Your task to perform on an android device: stop showing notifications on the lock screen Image 0: 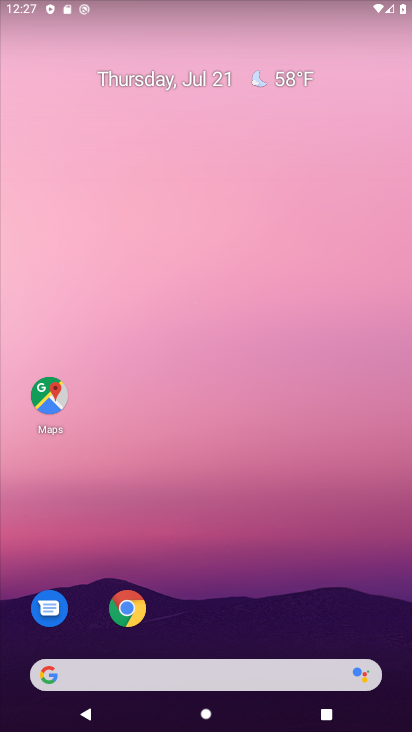
Step 0: drag from (226, 634) to (250, 93)
Your task to perform on an android device: stop showing notifications on the lock screen Image 1: 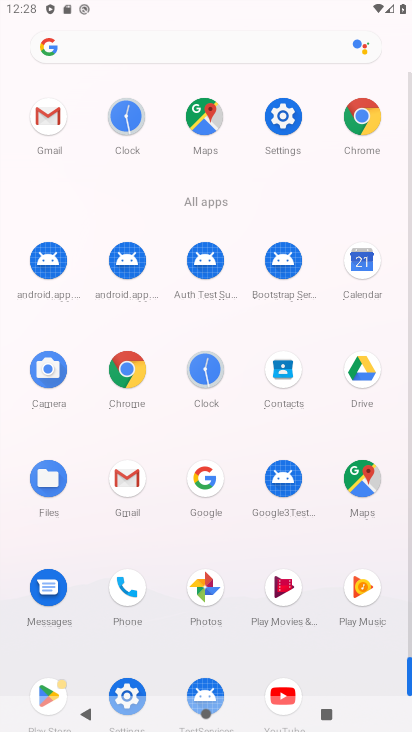
Step 1: click (279, 111)
Your task to perform on an android device: stop showing notifications on the lock screen Image 2: 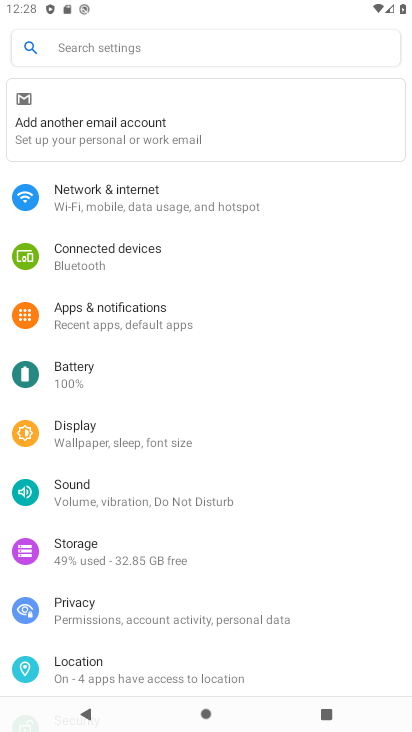
Step 2: click (147, 313)
Your task to perform on an android device: stop showing notifications on the lock screen Image 3: 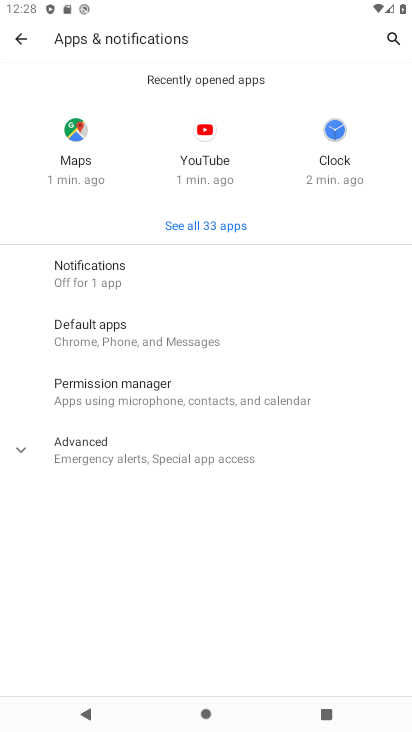
Step 3: click (128, 270)
Your task to perform on an android device: stop showing notifications on the lock screen Image 4: 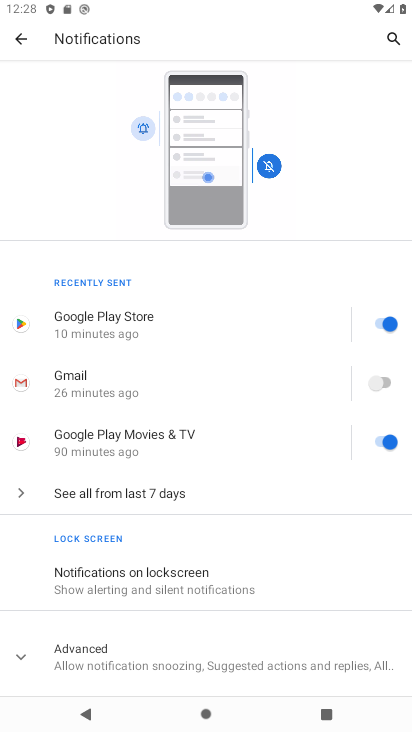
Step 4: click (85, 574)
Your task to perform on an android device: stop showing notifications on the lock screen Image 5: 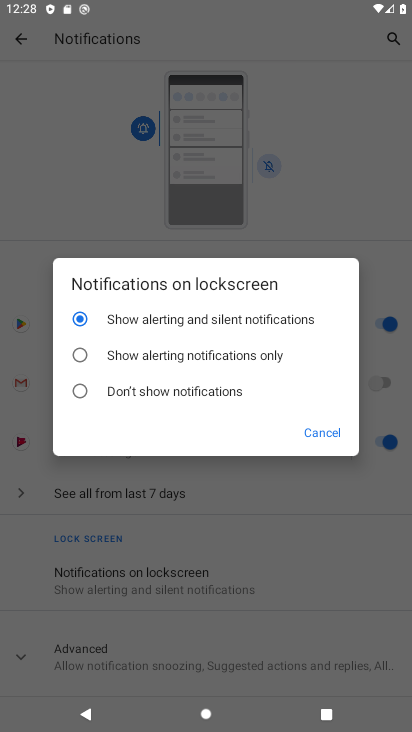
Step 5: click (79, 392)
Your task to perform on an android device: stop showing notifications on the lock screen Image 6: 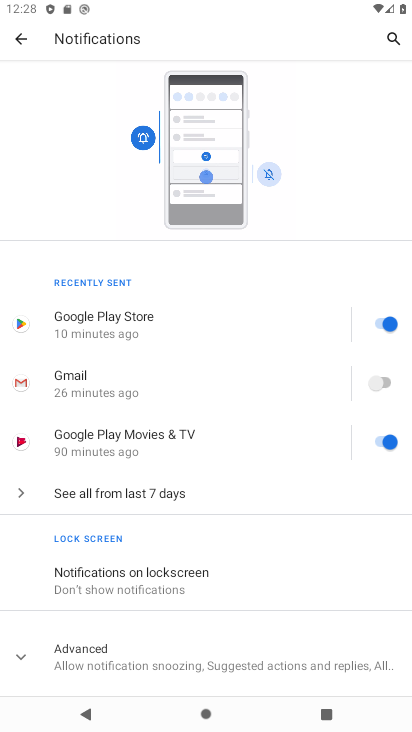
Step 6: task complete